Your task to perform on an android device: change the upload size in google photos Image 0: 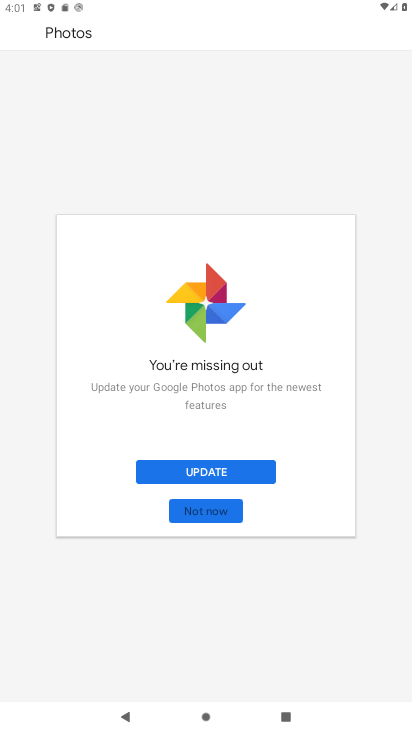
Step 0: click (215, 496)
Your task to perform on an android device: change the upload size in google photos Image 1: 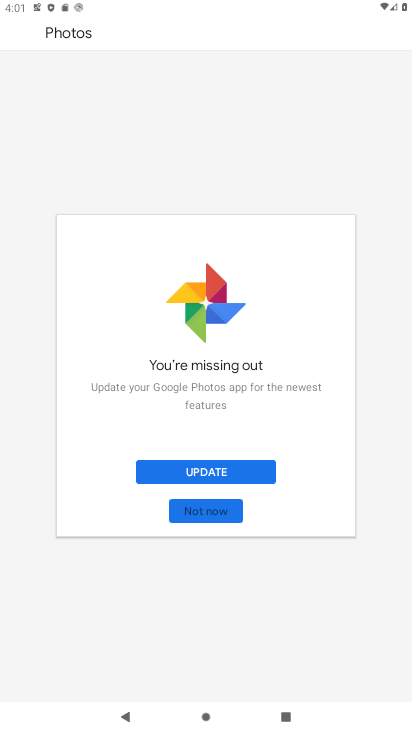
Step 1: click (215, 496)
Your task to perform on an android device: change the upload size in google photos Image 2: 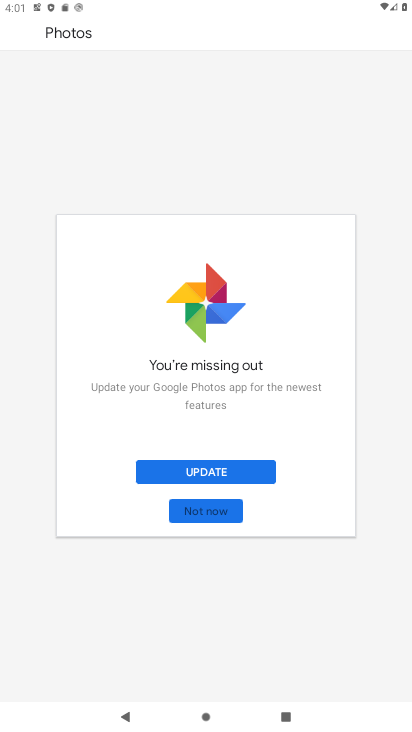
Step 2: click (215, 501)
Your task to perform on an android device: change the upload size in google photos Image 3: 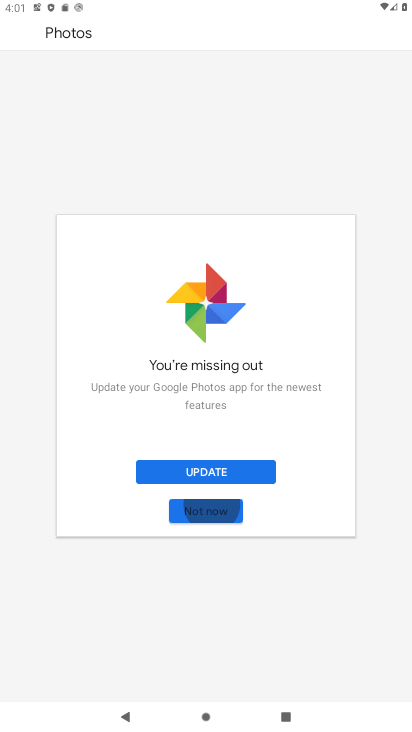
Step 3: click (220, 511)
Your task to perform on an android device: change the upload size in google photos Image 4: 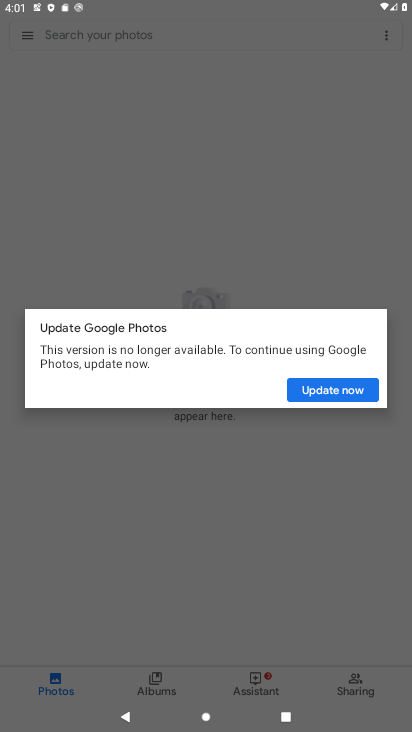
Step 4: click (185, 676)
Your task to perform on an android device: change the upload size in google photos Image 5: 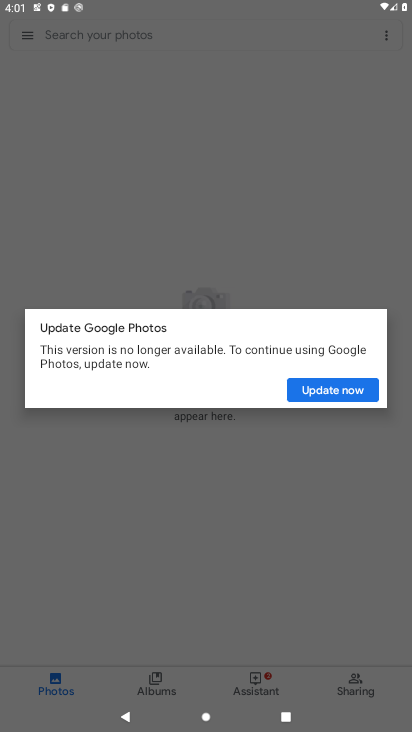
Step 5: task complete